Your task to perform on an android device: set the stopwatch Image 0: 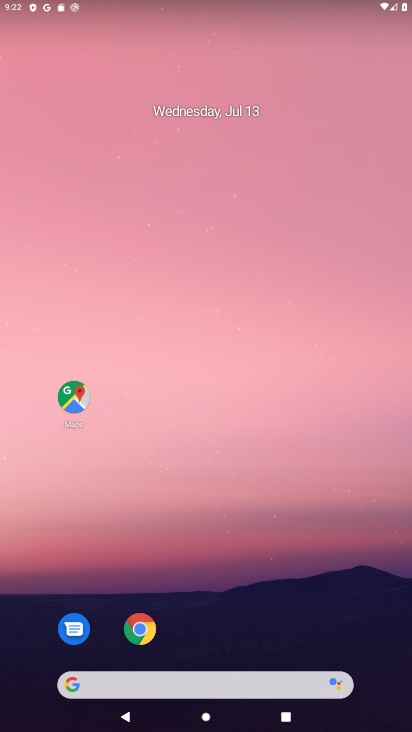
Step 0: drag from (301, 608) to (323, 96)
Your task to perform on an android device: set the stopwatch Image 1: 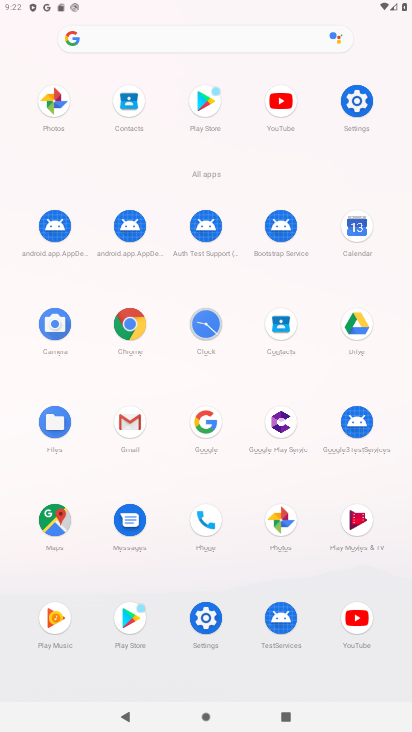
Step 1: click (216, 335)
Your task to perform on an android device: set the stopwatch Image 2: 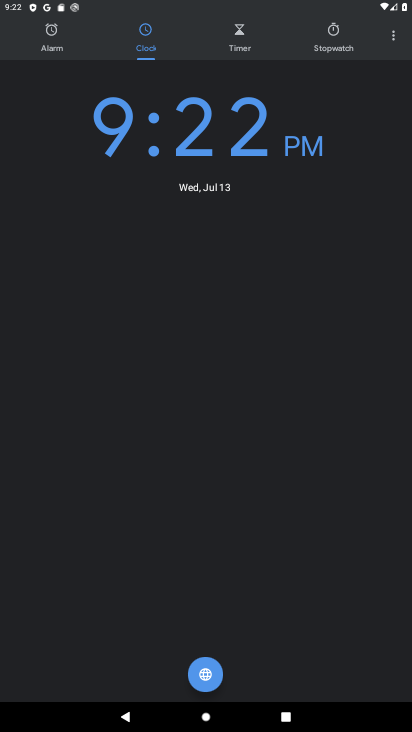
Step 2: task complete